Your task to perform on an android device: turn off improve location accuracy Image 0: 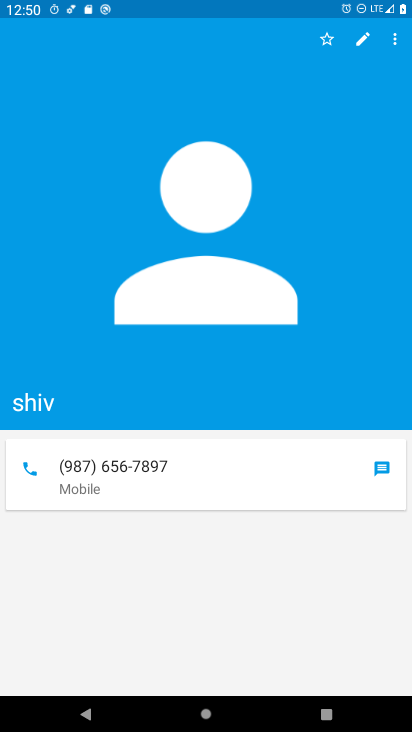
Step 0: press home button
Your task to perform on an android device: turn off improve location accuracy Image 1: 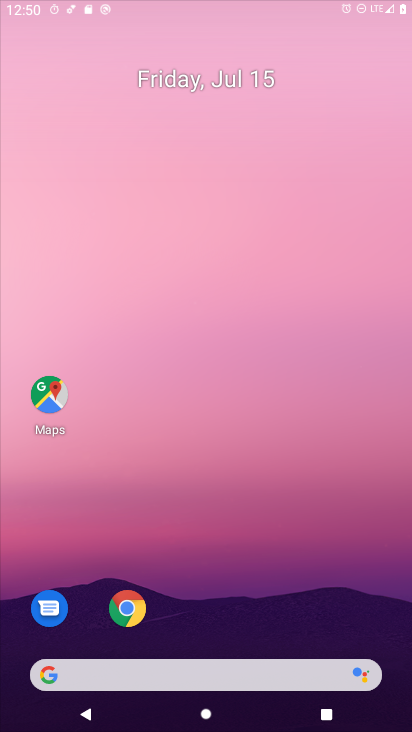
Step 1: drag from (162, 647) to (216, 292)
Your task to perform on an android device: turn off improve location accuracy Image 2: 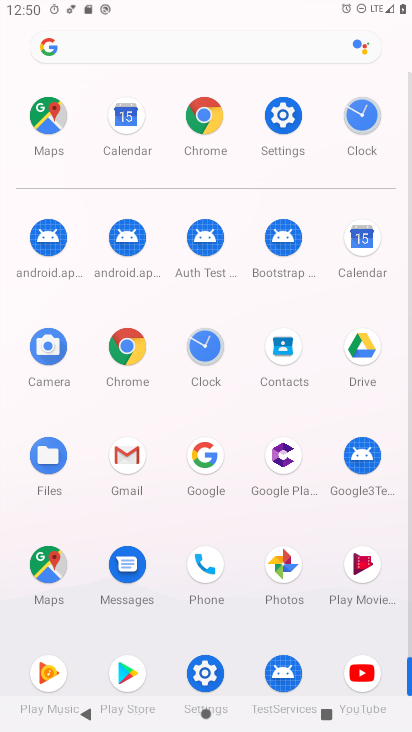
Step 2: click (279, 118)
Your task to perform on an android device: turn off improve location accuracy Image 3: 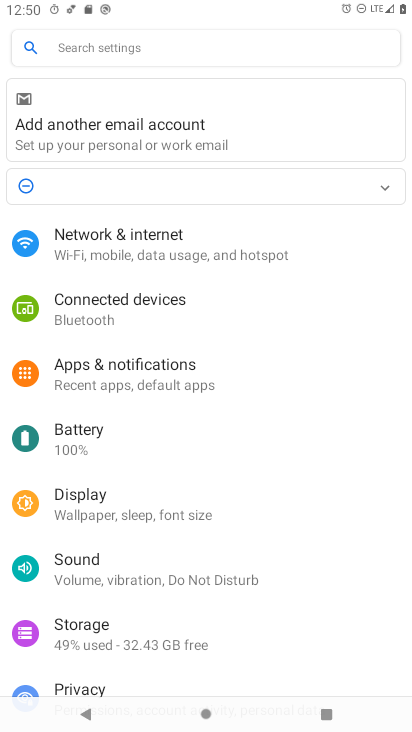
Step 3: drag from (146, 646) to (165, 359)
Your task to perform on an android device: turn off improve location accuracy Image 4: 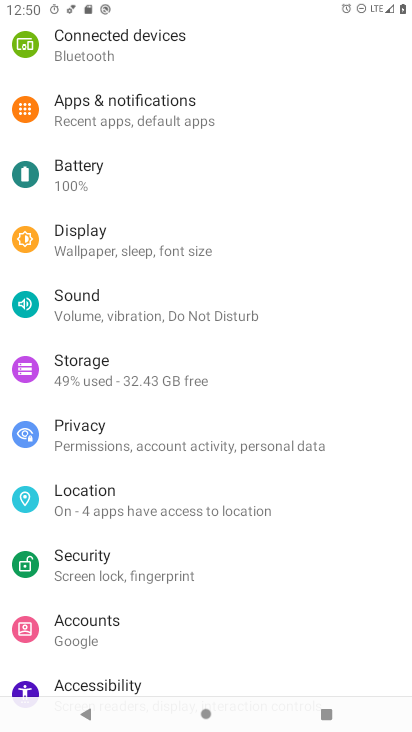
Step 4: click (172, 500)
Your task to perform on an android device: turn off improve location accuracy Image 5: 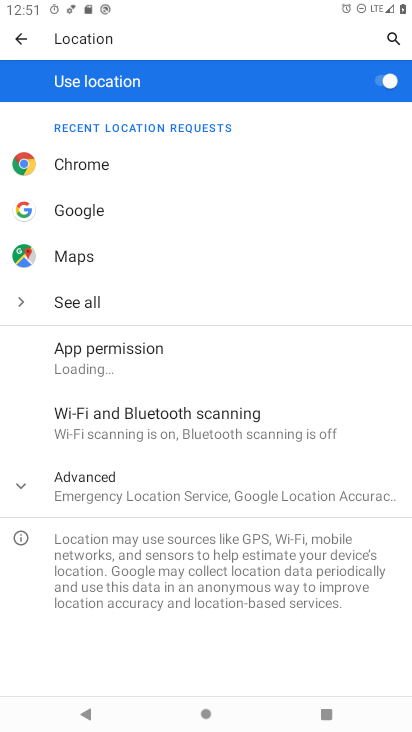
Step 5: click (319, 476)
Your task to perform on an android device: turn off improve location accuracy Image 6: 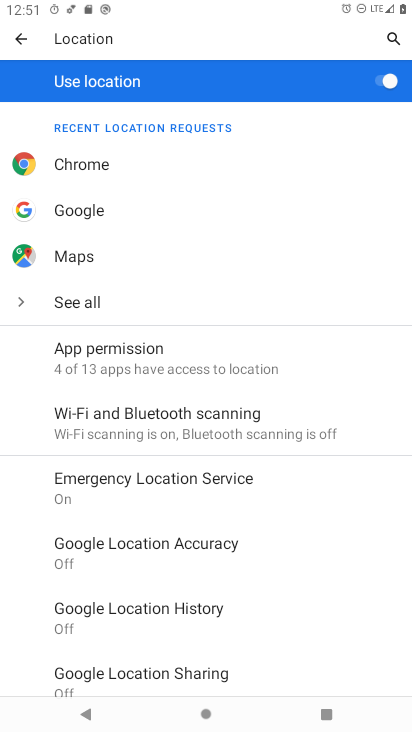
Step 6: click (304, 561)
Your task to perform on an android device: turn off improve location accuracy Image 7: 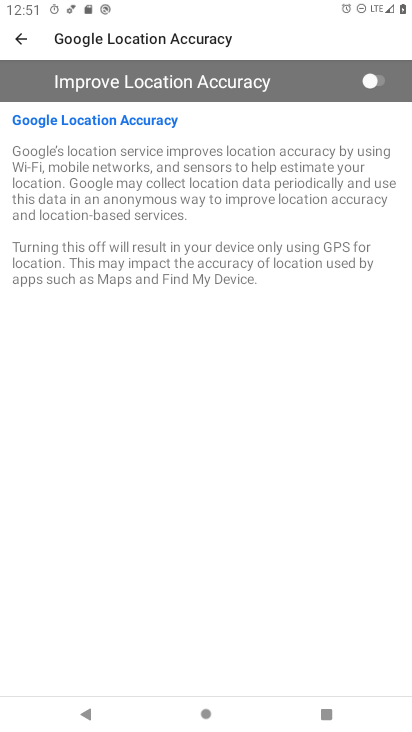
Step 7: task complete